Your task to perform on an android device: Open calendar and show me the fourth week of next month Image 0: 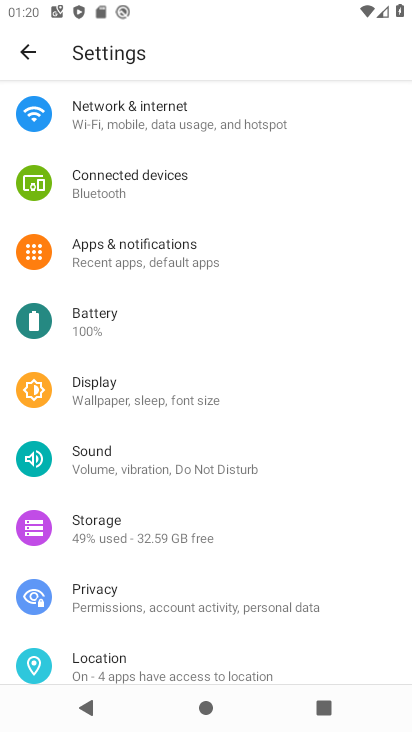
Step 0: press home button
Your task to perform on an android device: Open calendar and show me the fourth week of next month Image 1: 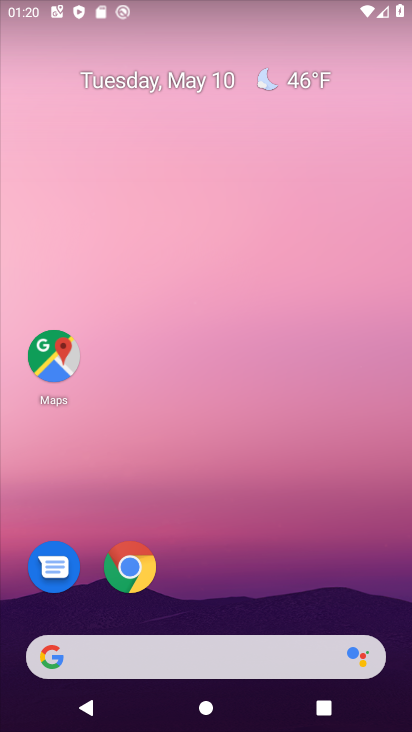
Step 1: drag from (312, 387) to (314, 24)
Your task to perform on an android device: Open calendar and show me the fourth week of next month Image 2: 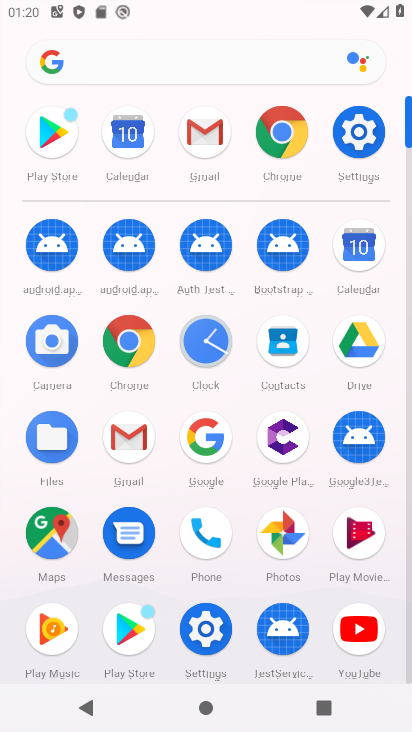
Step 2: click (350, 253)
Your task to perform on an android device: Open calendar and show me the fourth week of next month Image 3: 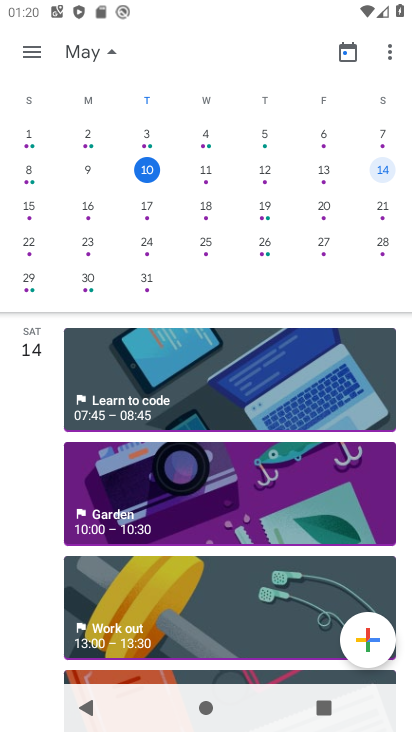
Step 3: drag from (319, 234) to (3, 249)
Your task to perform on an android device: Open calendar and show me the fourth week of next month Image 4: 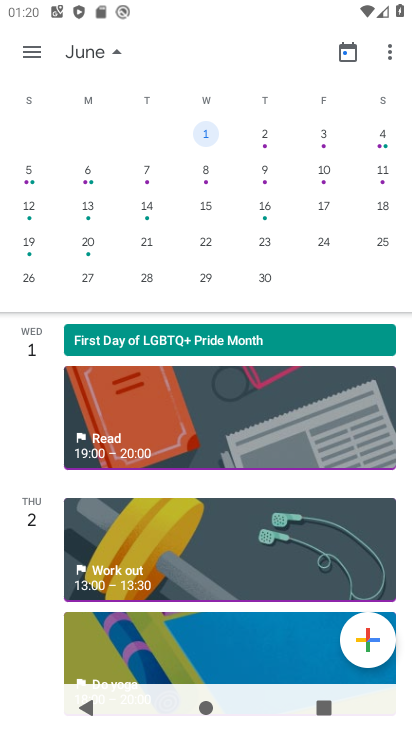
Step 4: drag from (350, 195) to (258, 202)
Your task to perform on an android device: Open calendar and show me the fourth week of next month Image 5: 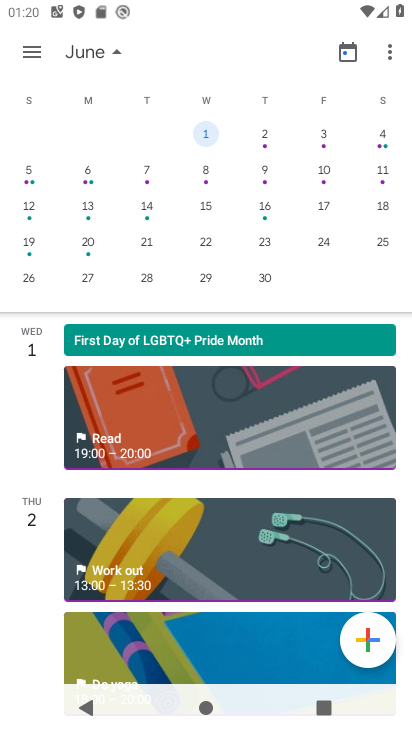
Step 5: click (24, 251)
Your task to perform on an android device: Open calendar and show me the fourth week of next month Image 6: 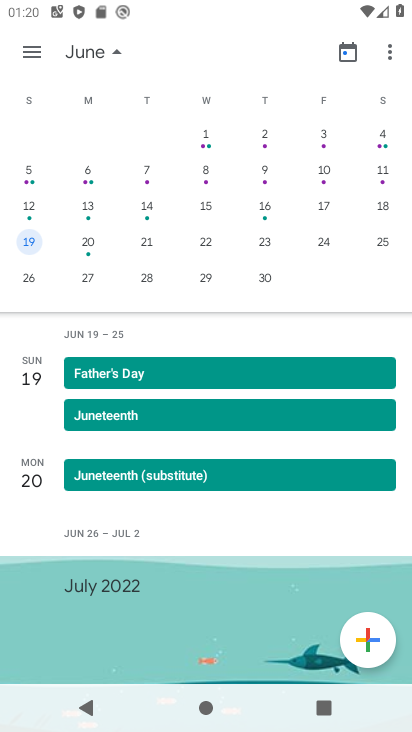
Step 6: click (100, 252)
Your task to perform on an android device: Open calendar and show me the fourth week of next month Image 7: 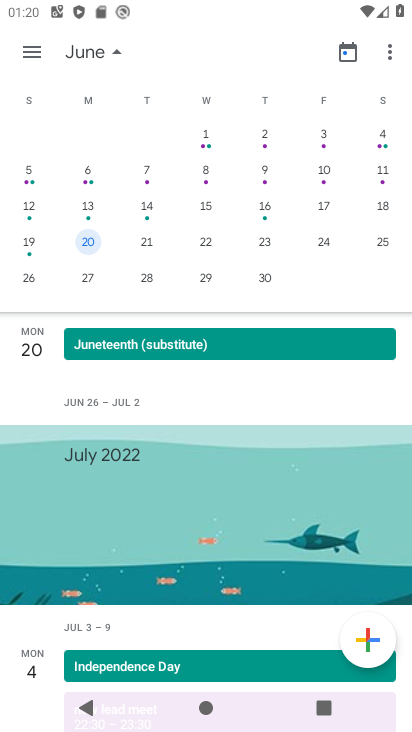
Step 7: click (149, 254)
Your task to perform on an android device: Open calendar and show me the fourth week of next month Image 8: 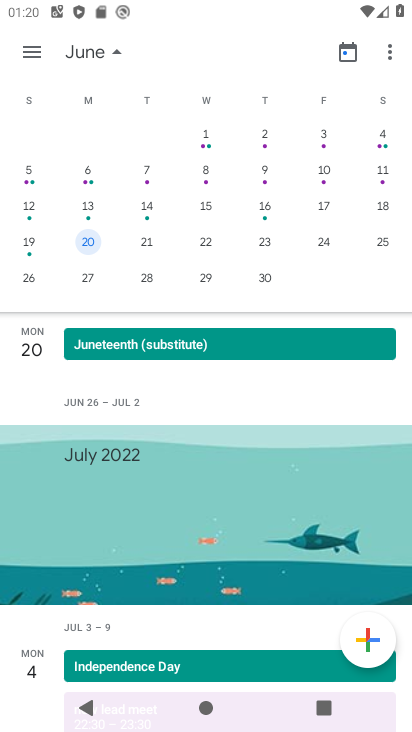
Step 8: click (215, 253)
Your task to perform on an android device: Open calendar and show me the fourth week of next month Image 9: 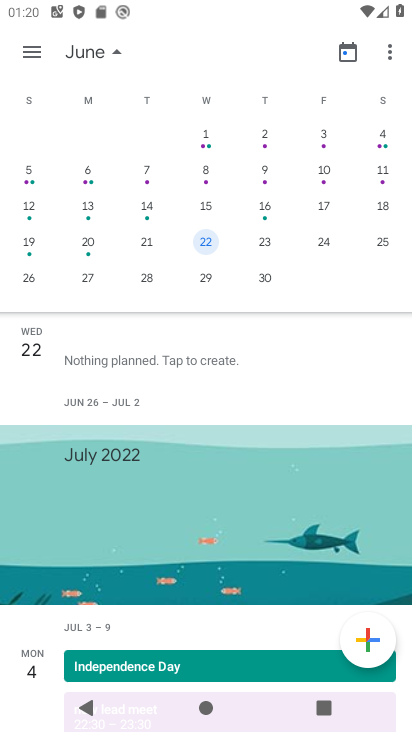
Step 9: click (268, 258)
Your task to perform on an android device: Open calendar and show me the fourth week of next month Image 10: 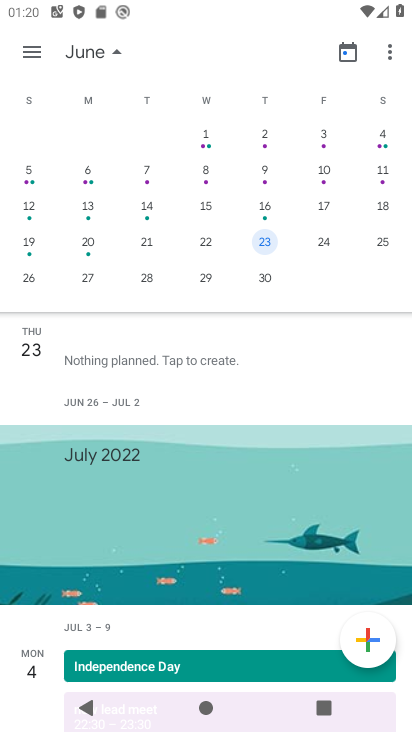
Step 10: click (333, 255)
Your task to perform on an android device: Open calendar and show me the fourth week of next month Image 11: 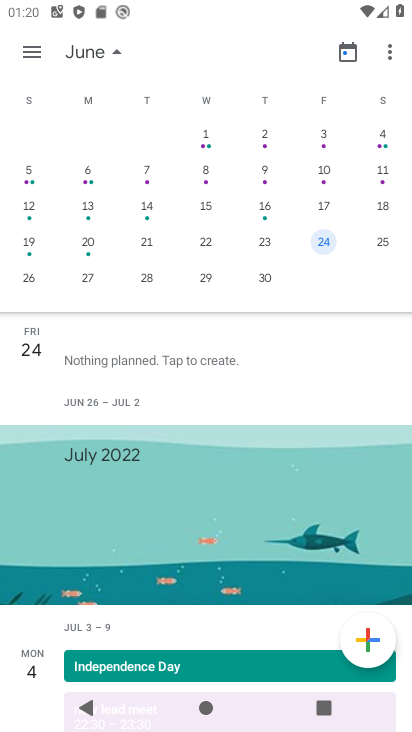
Step 11: click (392, 245)
Your task to perform on an android device: Open calendar and show me the fourth week of next month Image 12: 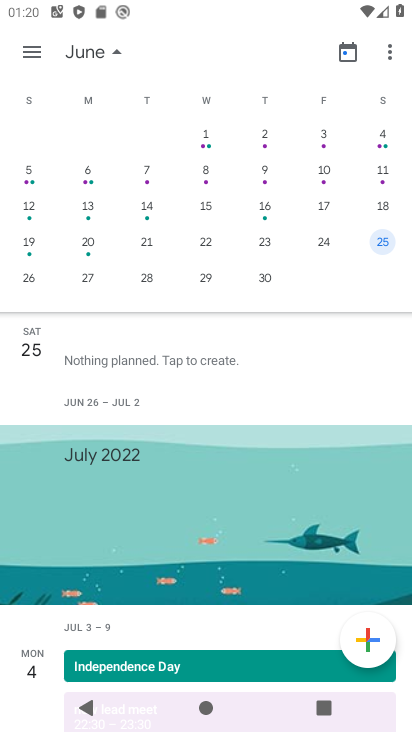
Step 12: click (38, 249)
Your task to perform on an android device: Open calendar and show me the fourth week of next month Image 13: 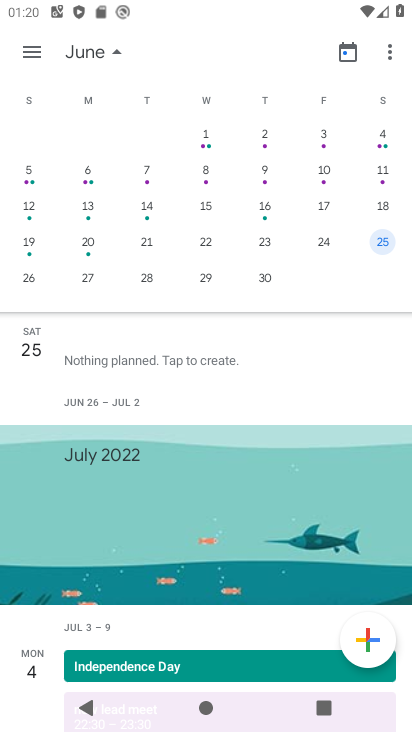
Step 13: click (196, 252)
Your task to perform on an android device: Open calendar and show me the fourth week of next month Image 14: 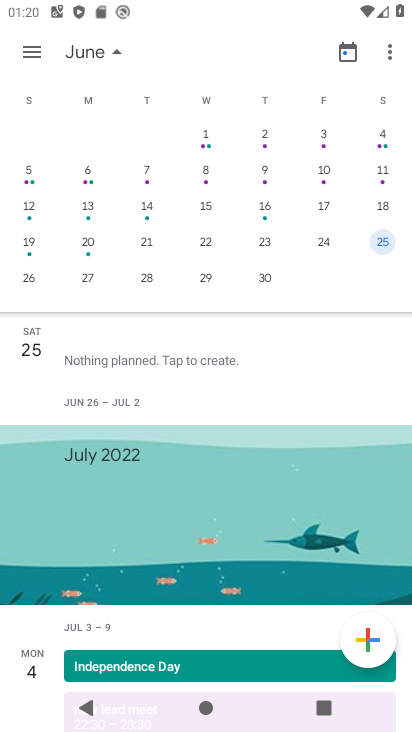
Step 14: click (279, 248)
Your task to perform on an android device: Open calendar and show me the fourth week of next month Image 15: 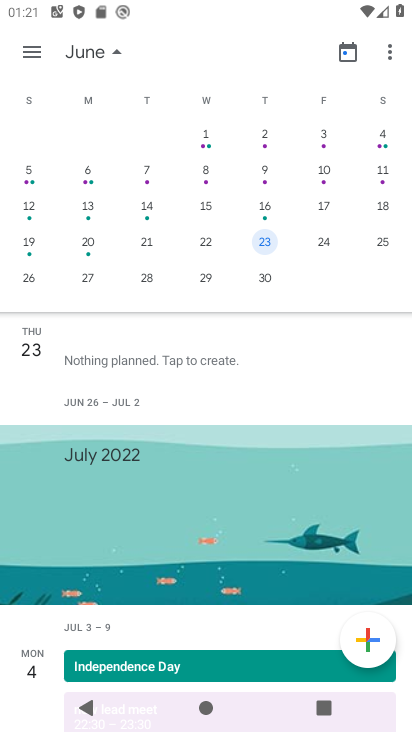
Step 15: task complete